Your task to perform on an android device: Go to accessibility settings Image 0: 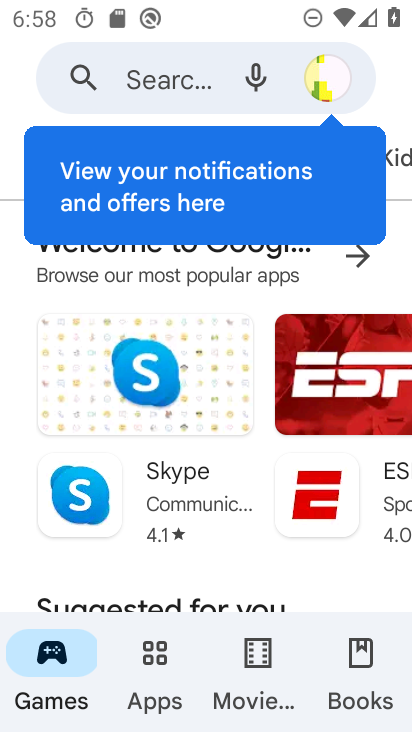
Step 0: press home button
Your task to perform on an android device: Go to accessibility settings Image 1: 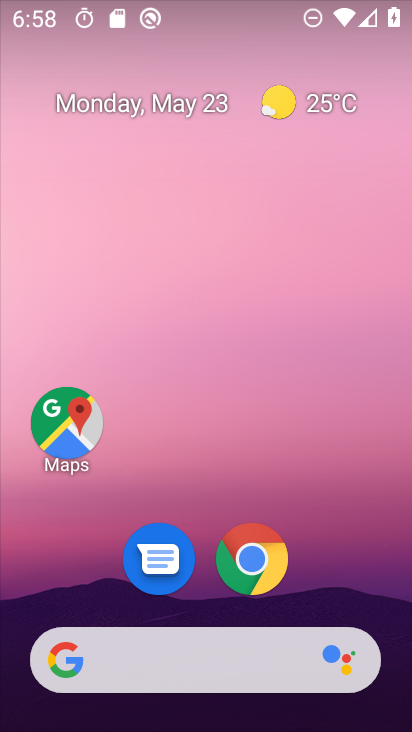
Step 1: drag from (393, 631) to (297, 67)
Your task to perform on an android device: Go to accessibility settings Image 2: 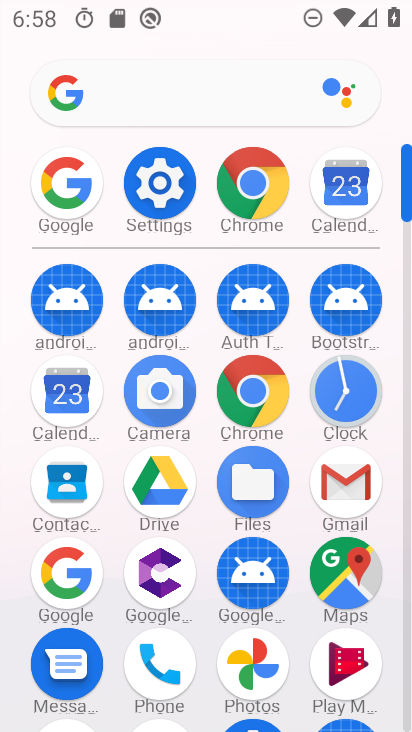
Step 2: click (145, 209)
Your task to perform on an android device: Go to accessibility settings Image 3: 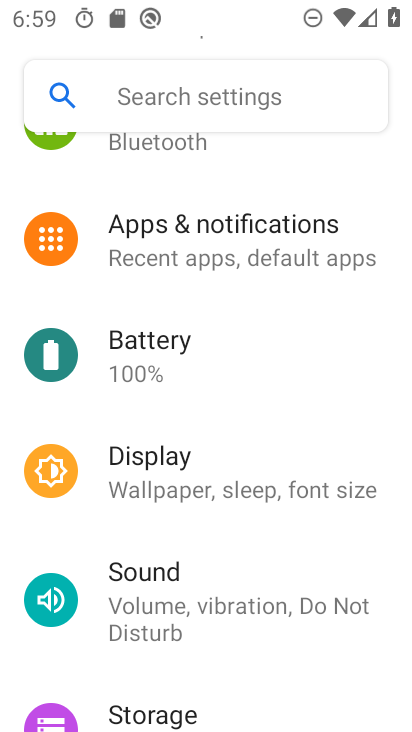
Step 3: drag from (188, 722) to (187, 219)
Your task to perform on an android device: Go to accessibility settings Image 4: 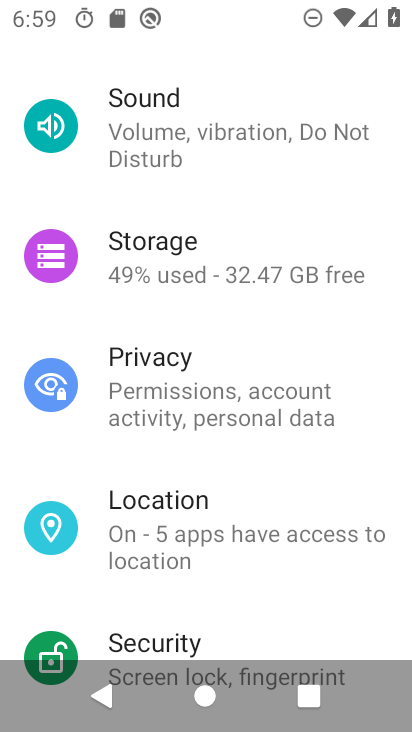
Step 4: drag from (188, 632) to (238, 169)
Your task to perform on an android device: Go to accessibility settings Image 5: 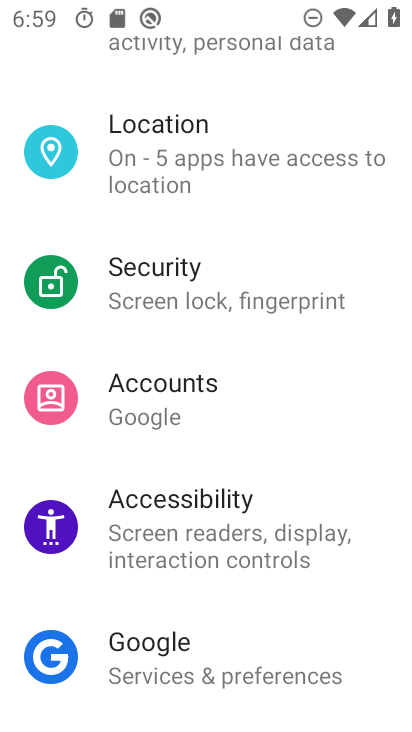
Step 5: click (245, 520)
Your task to perform on an android device: Go to accessibility settings Image 6: 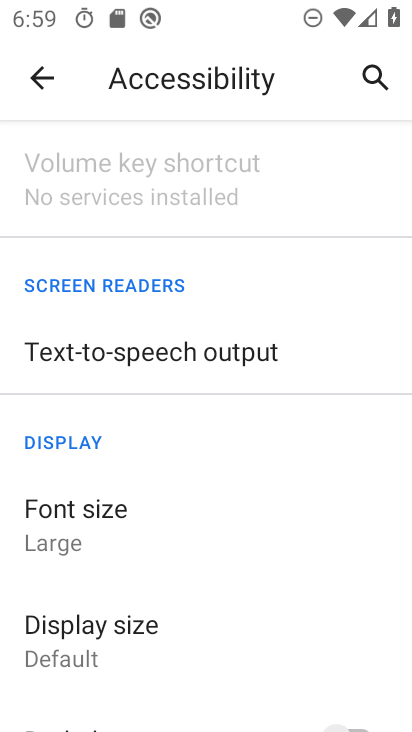
Step 6: task complete